Your task to perform on an android device: Turn on the flashlight Image 0: 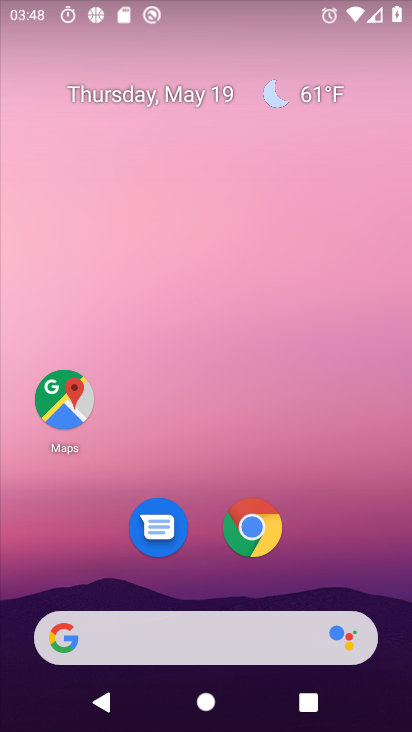
Step 0: drag from (195, 536) to (276, 26)
Your task to perform on an android device: Turn on the flashlight Image 1: 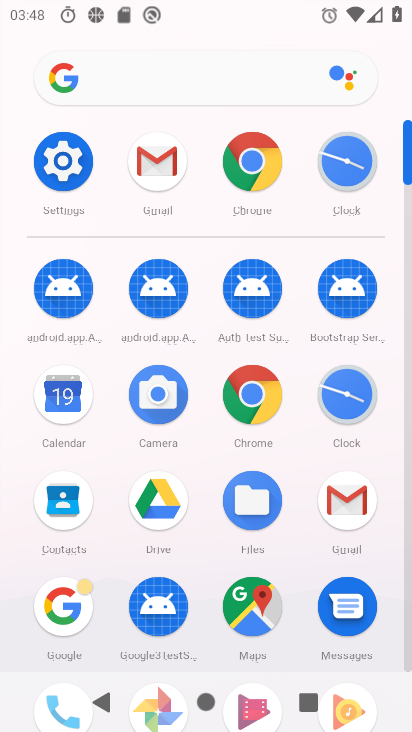
Step 1: click (54, 156)
Your task to perform on an android device: Turn on the flashlight Image 2: 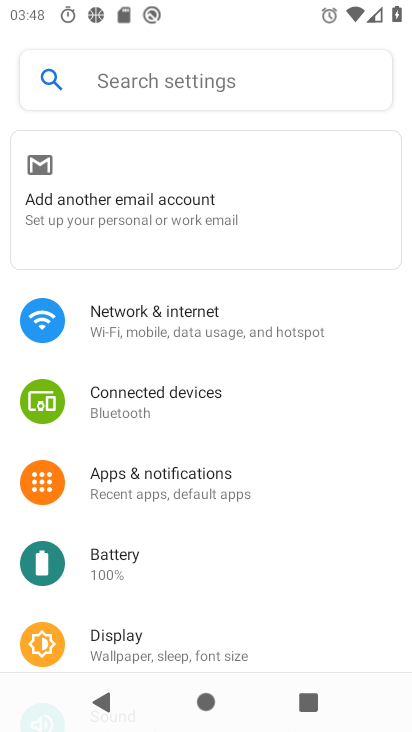
Step 2: click (169, 72)
Your task to perform on an android device: Turn on the flashlight Image 3: 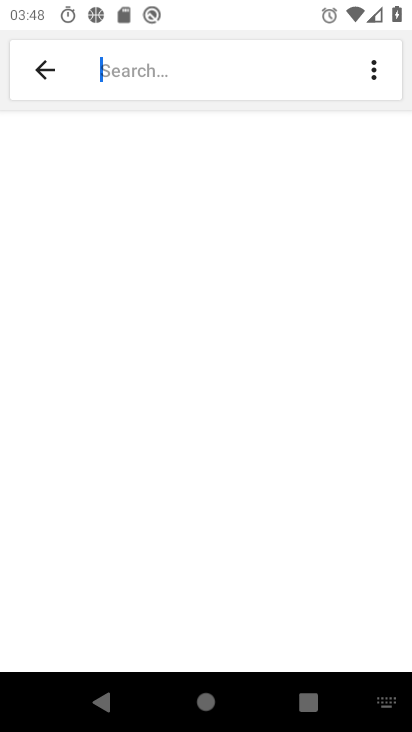
Step 3: type "flashlight"
Your task to perform on an android device: Turn on the flashlight Image 4: 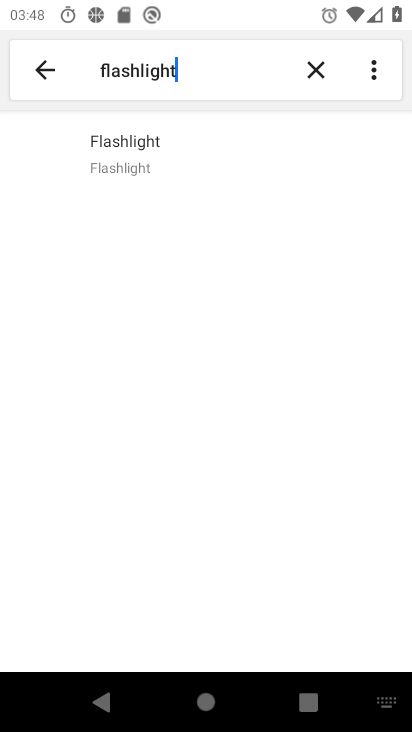
Step 4: click (144, 157)
Your task to perform on an android device: Turn on the flashlight Image 5: 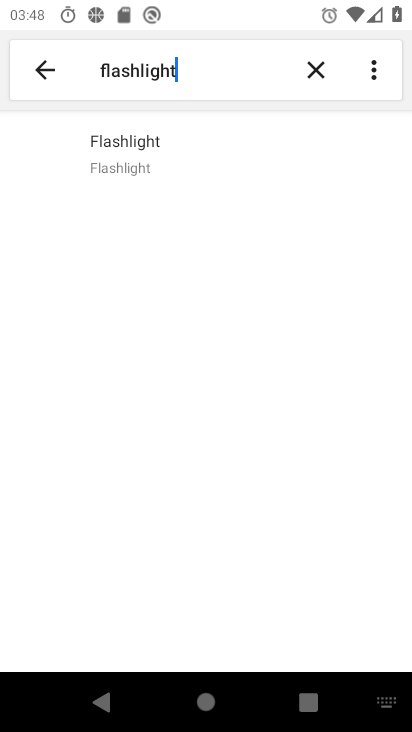
Step 5: click (156, 152)
Your task to perform on an android device: Turn on the flashlight Image 6: 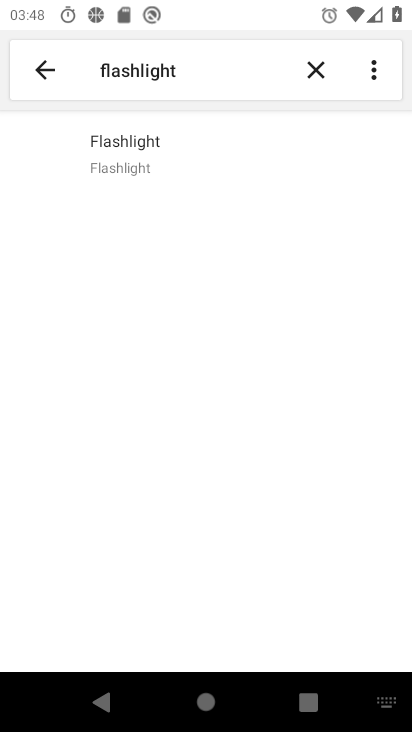
Step 6: task complete